Your task to perform on an android device: install app "Venmo" Image 0: 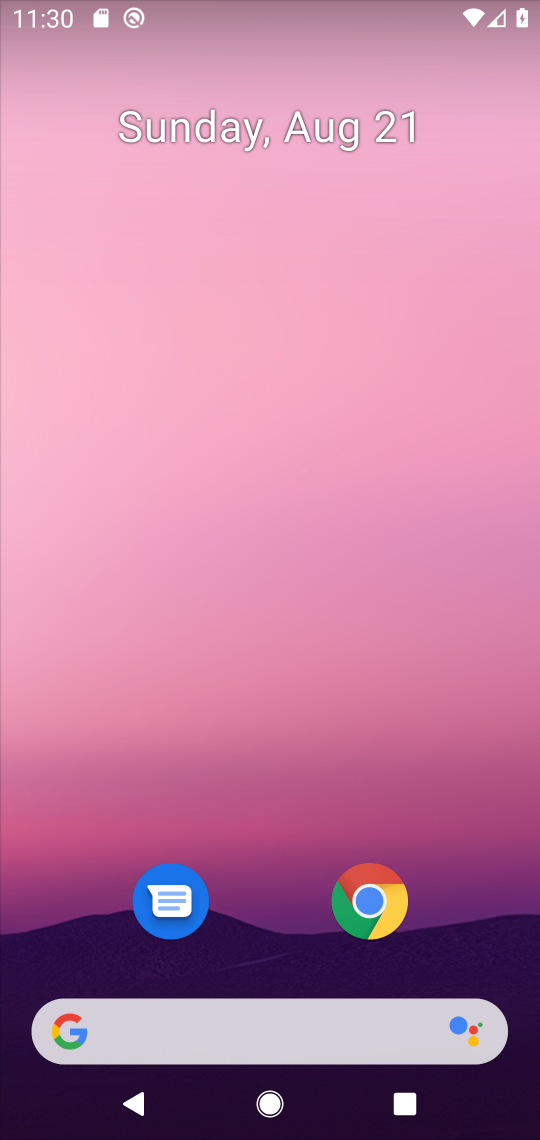
Step 0: drag from (276, 974) to (304, 97)
Your task to perform on an android device: install app "Venmo" Image 1: 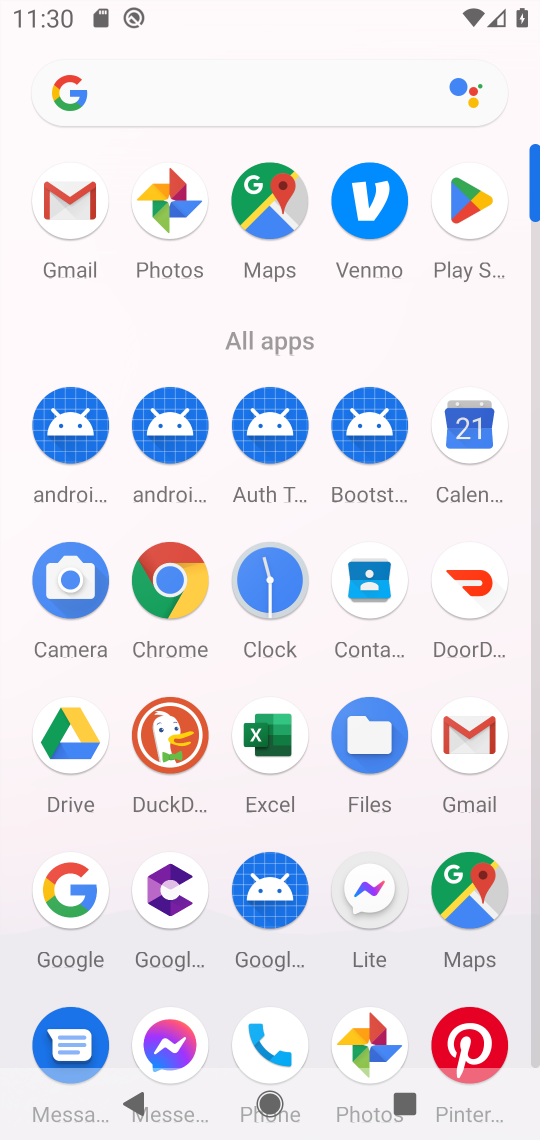
Step 1: task complete